Your task to perform on an android device: delete browsing data in the chrome app Image 0: 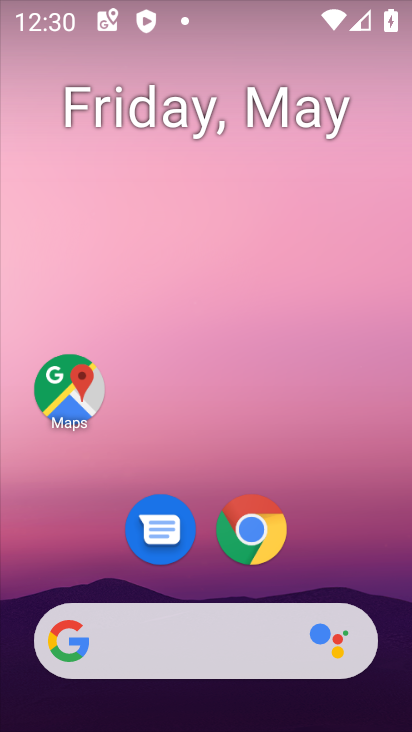
Step 0: click (253, 549)
Your task to perform on an android device: delete browsing data in the chrome app Image 1: 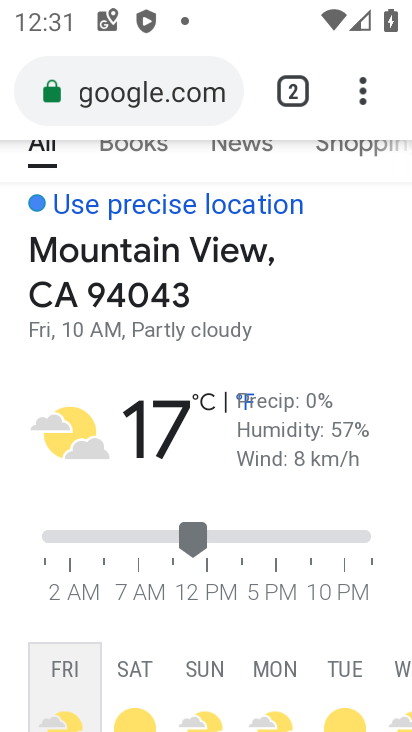
Step 1: click (368, 90)
Your task to perform on an android device: delete browsing data in the chrome app Image 2: 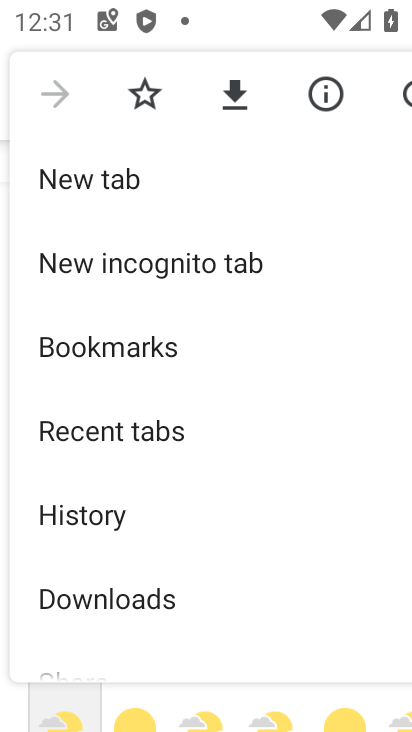
Step 2: click (104, 518)
Your task to perform on an android device: delete browsing data in the chrome app Image 3: 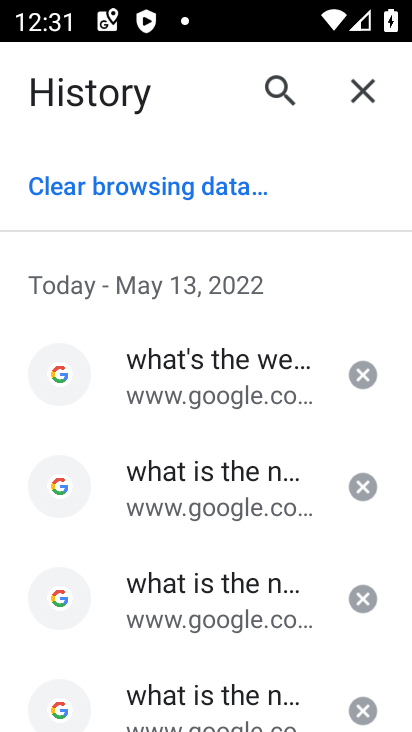
Step 3: click (106, 190)
Your task to perform on an android device: delete browsing data in the chrome app Image 4: 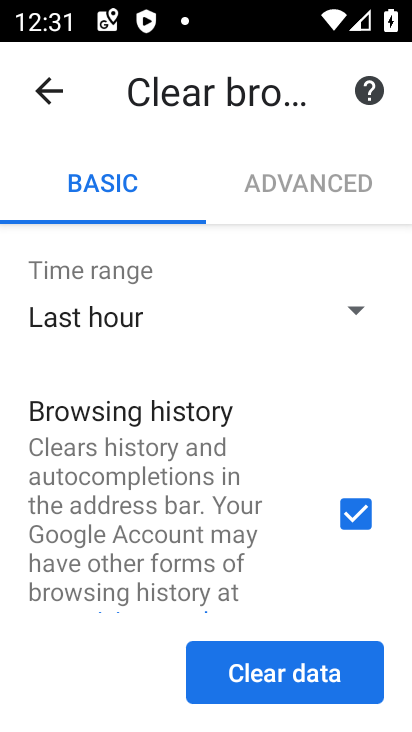
Step 4: click (301, 673)
Your task to perform on an android device: delete browsing data in the chrome app Image 5: 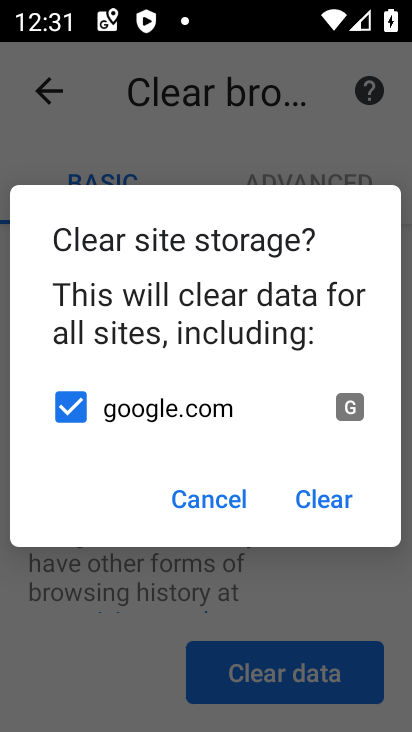
Step 5: click (333, 499)
Your task to perform on an android device: delete browsing data in the chrome app Image 6: 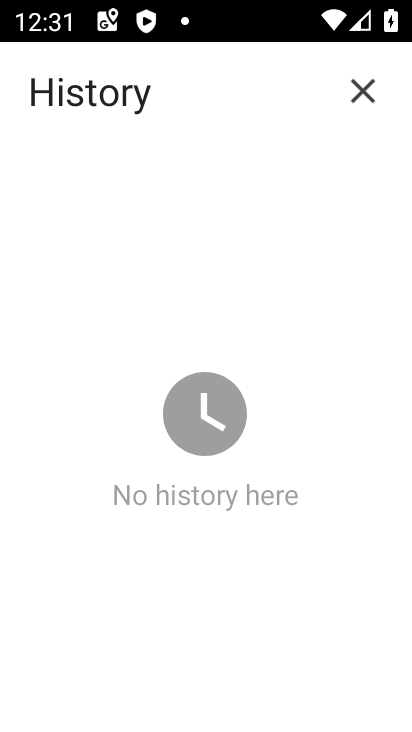
Step 6: task complete